Your task to perform on an android device: star an email in the gmail app Image 0: 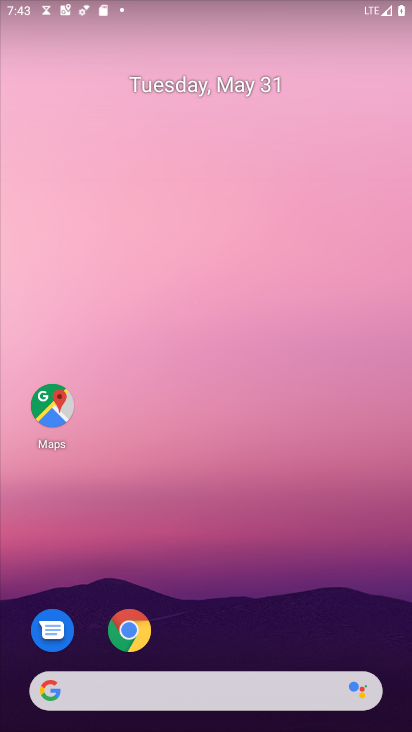
Step 0: drag from (229, 619) to (195, 83)
Your task to perform on an android device: star an email in the gmail app Image 1: 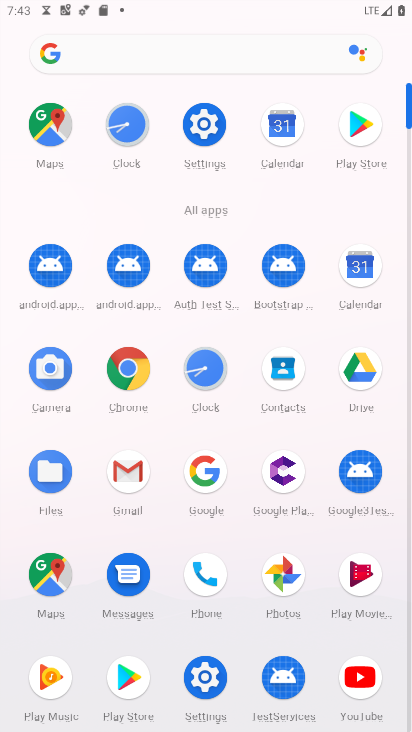
Step 1: click (128, 471)
Your task to perform on an android device: star an email in the gmail app Image 2: 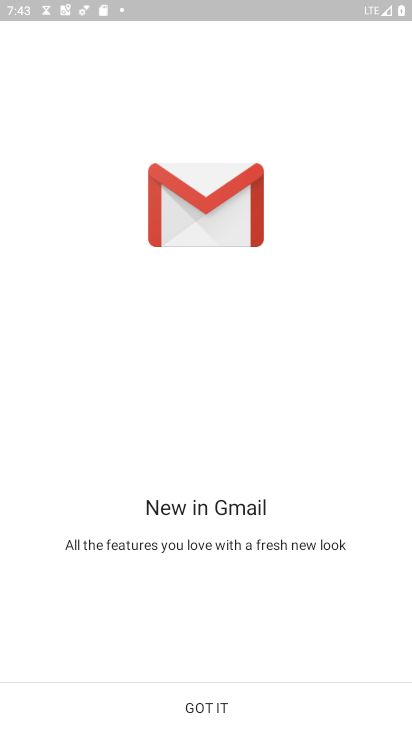
Step 2: click (205, 711)
Your task to perform on an android device: star an email in the gmail app Image 3: 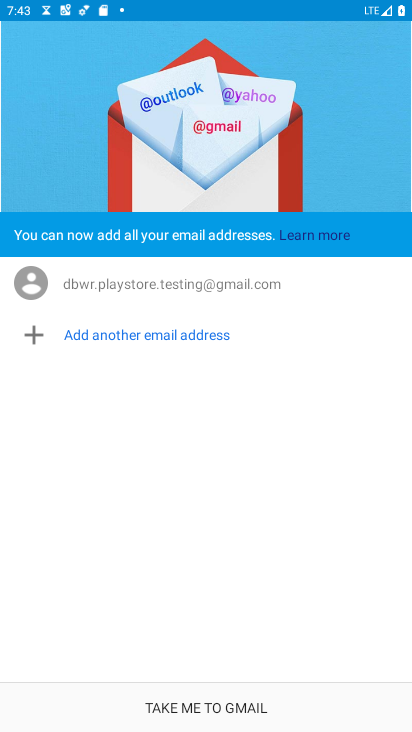
Step 3: click (205, 711)
Your task to perform on an android device: star an email in the gmail app Image 4: 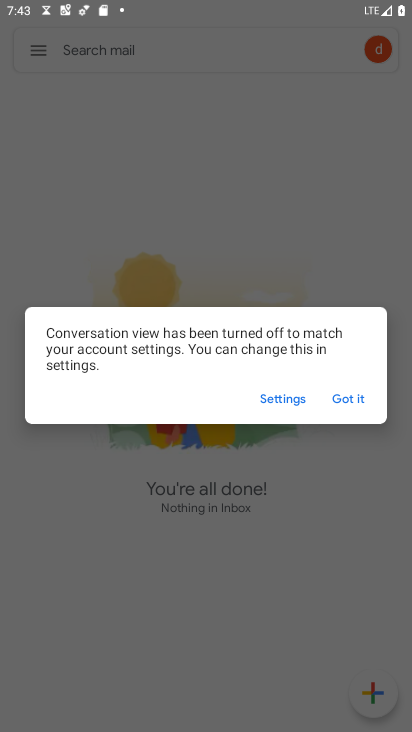
Step 4: click (344, 395)
Your task to perform on an android device: star an email in the gmail app Image 5: 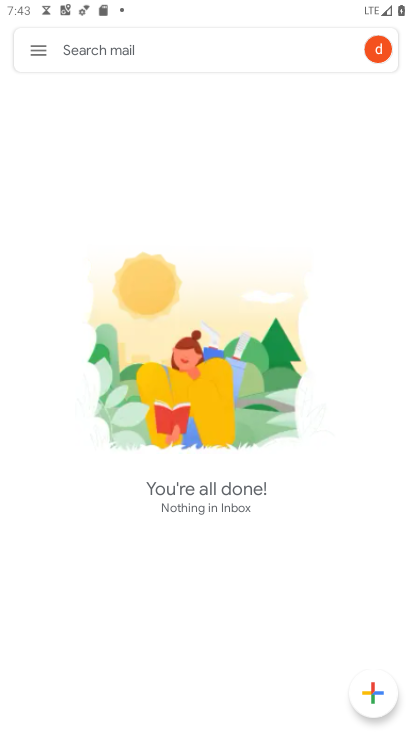
Step 5: click (34, 53)
Your task to perform on an android device: star an email in the gmail app Image 6: 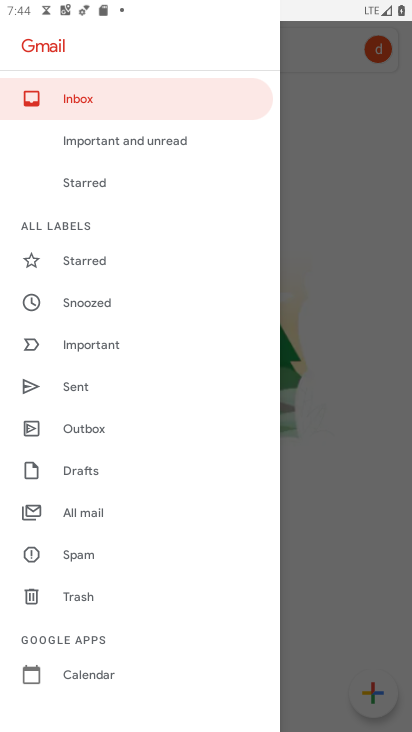
Step 6: drag from (105, 371) to (106, 311)
Your task to perform on an android device: star an email in the gmail app Image 7: 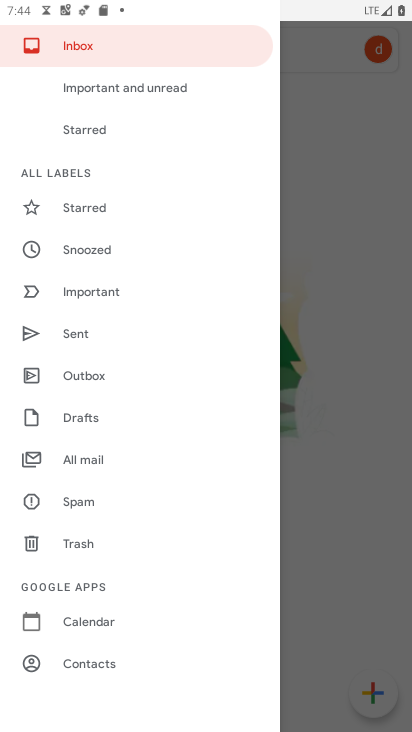
Step 7: click (91, 463)
Your task to perform on an android device: star an email in the gmail app Image 8: 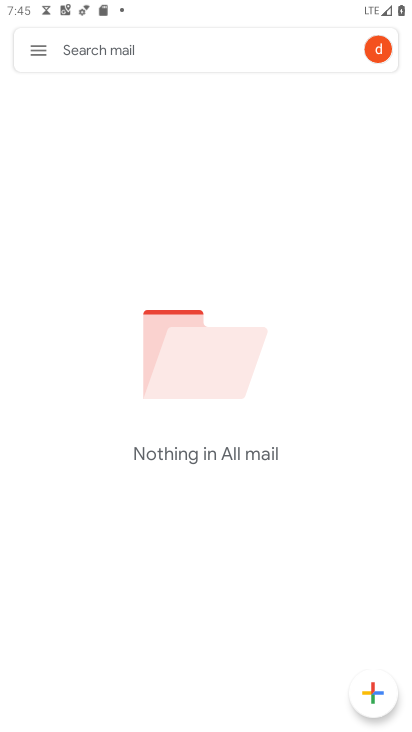
Step 8: click (47, 55)
Your task to perform on an android device: star an email in the gmail app Image 9: 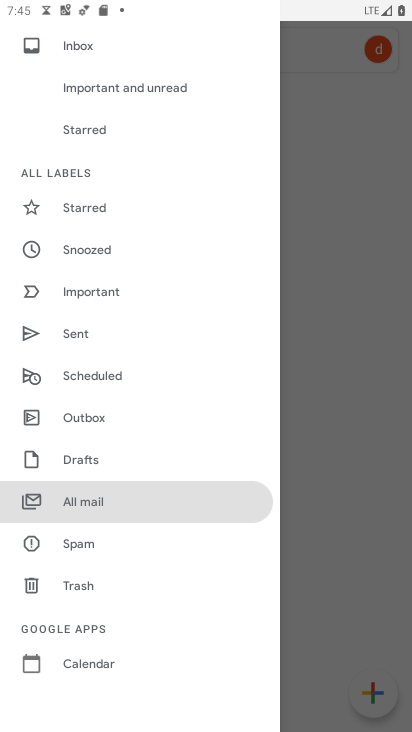
Step 9: click (72, 46)
Your task to perform on an android device: star an email in the gmail app Image 10: 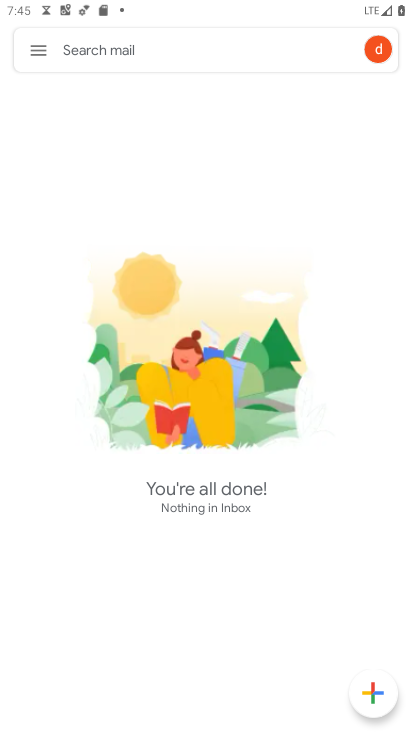
Step 10: task complete